Your task to perform on an android device: toggle improve location accuracy Image 0: 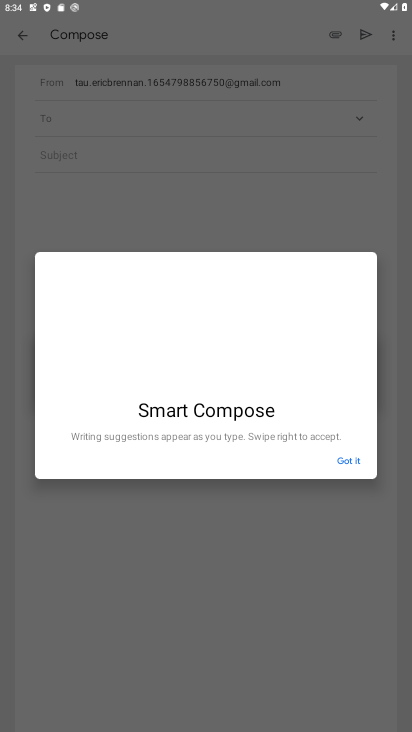
Step 0: press home button
Your task to perform on an android device: toggle improve location accuracy Image 1: 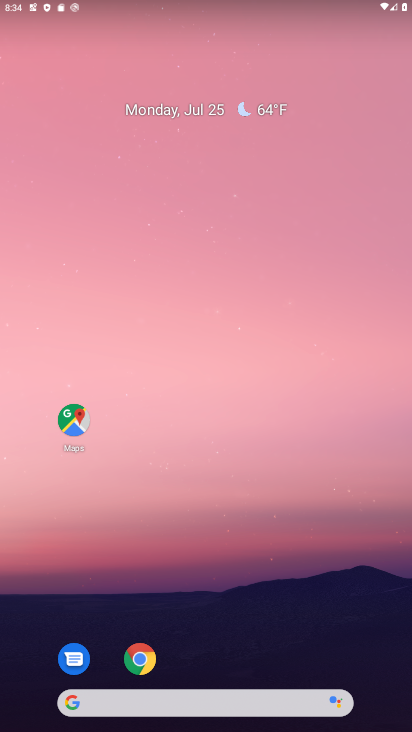
Step 1: drag from (340, 629) to (399, 117)
Your task to perform on an android device: toggle improve location accuracy Image 2: 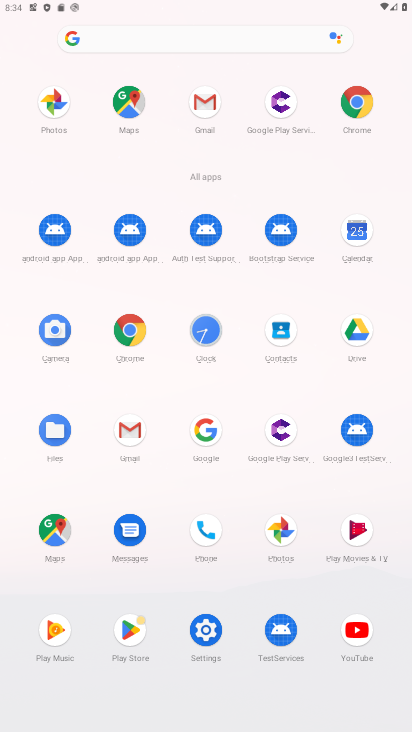
Step 2: click (207, 638)
Your task to perform on an android device: toggle improve location accuracy Image 3: 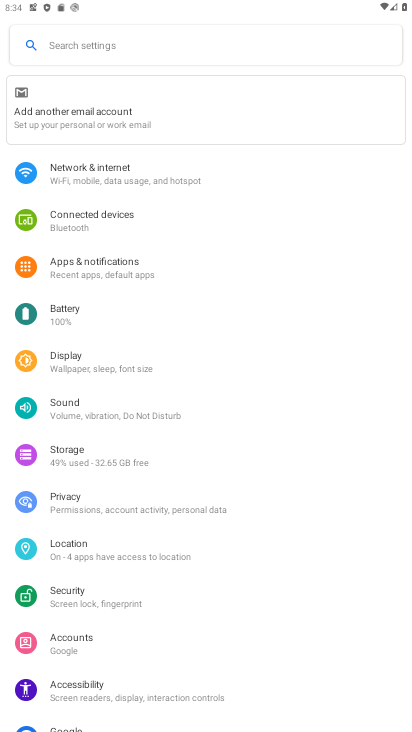
Step 3: drag from (269, 543) to (285, 429)
Your task to perform on an android device: toggle improve location accuracy Image 4: 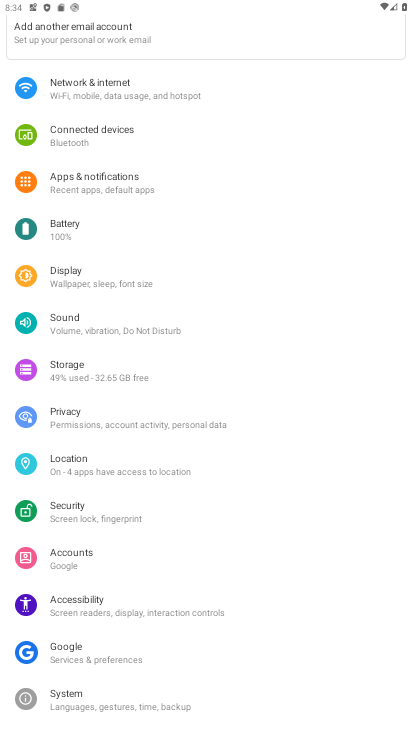
Step 4: click (174, 465)
Your task to perform on an android device: toggle improve location accuracy Image 5: 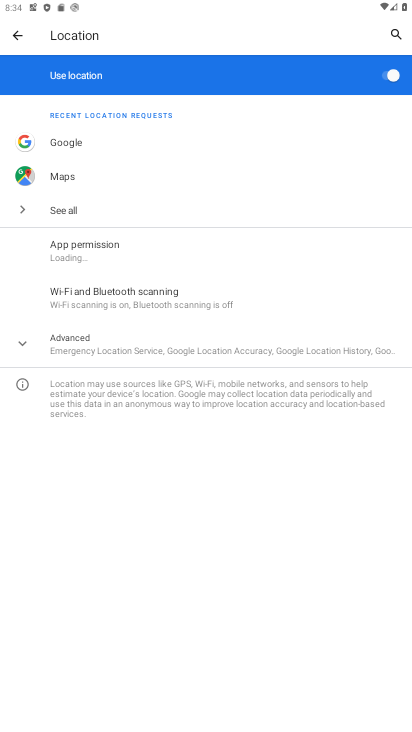
Step 5: click (132, 341)
Your task to perform on an android device: toggle improve location accuracy Image 6: 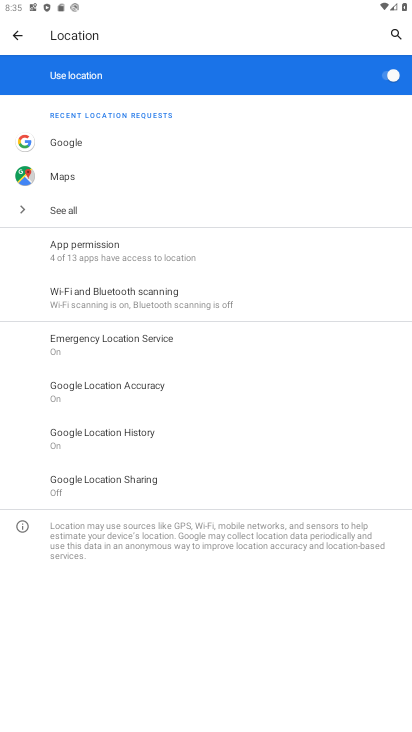
Step 6: click (142, 386)
Your task to perform on an android device: toggle improve location accuracy Image 7: 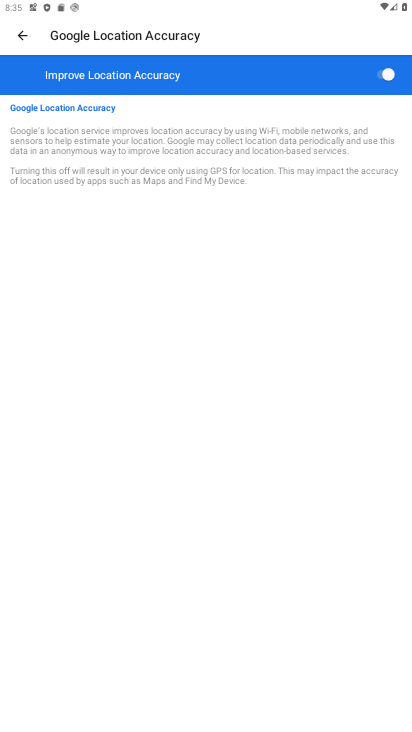
Step 7: click (380, 79)
Your task to perform on an android device: toggle improve location accuracy Image 8: 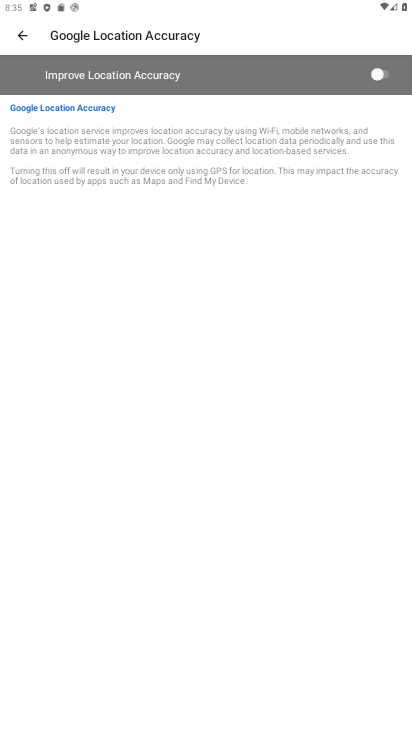
Step 8: task complete